Your task to perform on an android device: View the shopping cart on newegg. Add razer blade to the cart on newegg Image 0: 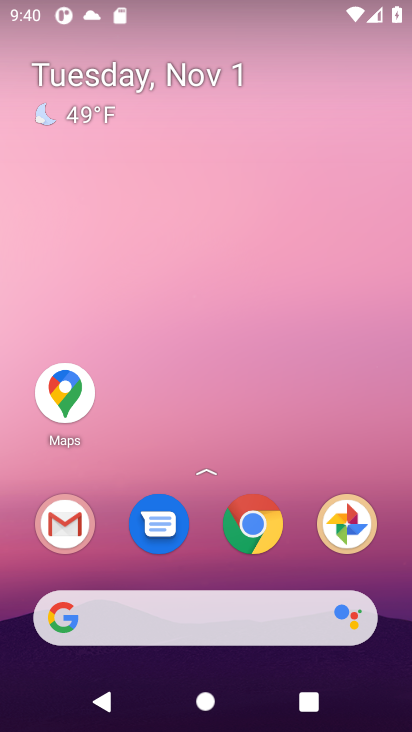
Step 0: press home button
Your task to perform on an android device: View the shopping cart on newegg. Add razer blade to the cart on newegg Image 1: 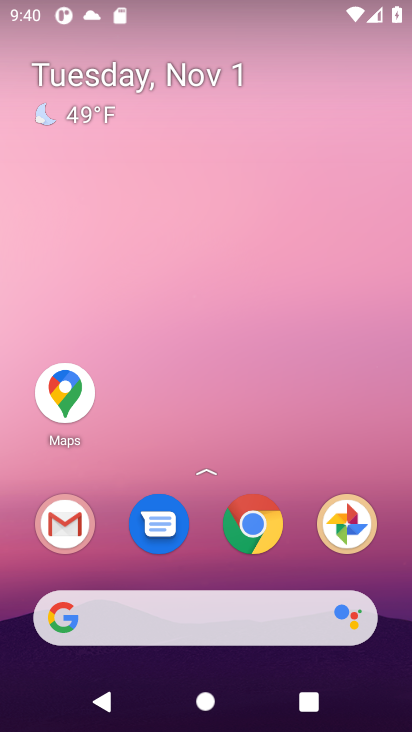
Step 1: click (95, 619)
Your task to perform on an android device: View the shopping cart on newegg. Add razer blade to the cart on newegg Image 2: 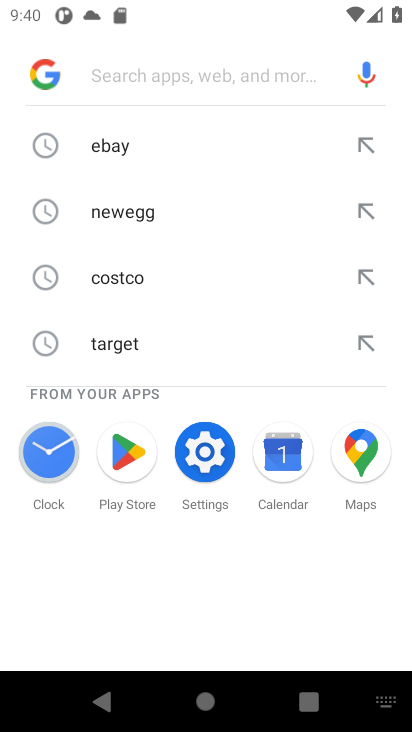
Step 2: type "newegg"
Your task to perform on an android device: View the shopping cart on newegg. Add razer blade to the cart on newegg Image 3: 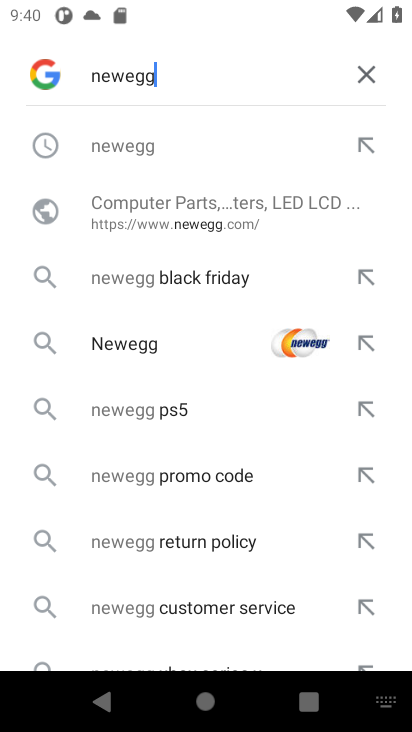
Step 3: press enter
Your task to perform on an android device: View the shopping cart on newegg. Add razer blade to the cart on newegg Image 4: 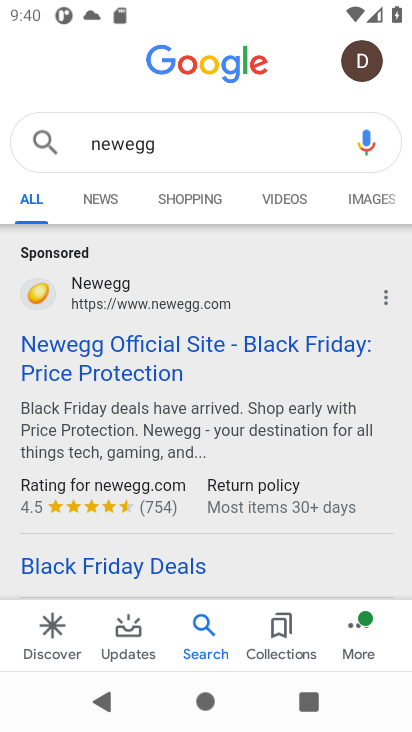
Step 4: click (108, 358)
Your task to perform on an android device: View the shopping cart on newegg. Add razer blade to the cart on newegg Image 5: 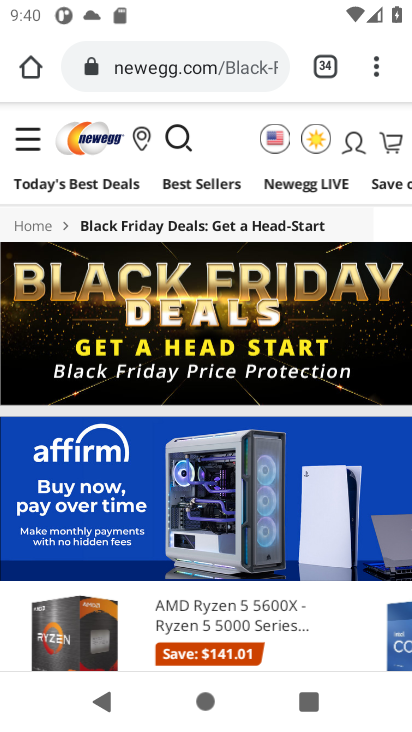
Step 5: click (397, 138)
Your task to perform on an android device: View the shopping cart on newegg. Add razer blade to the cart on newegg Image 6: 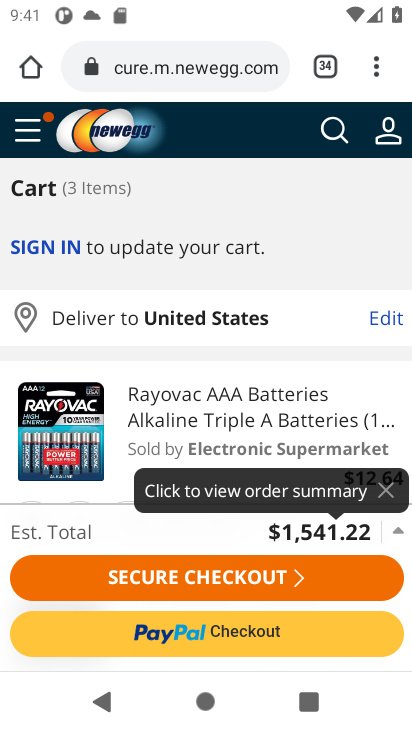
Step 6: click (324, 130)
Your task to perform on an android device: View the shopping cart on newegg. Add razer blade to the cart on newegg Image 7: 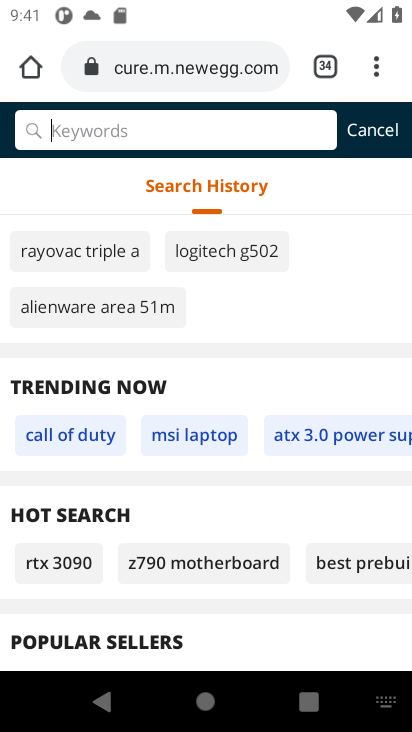
Step 7: press enter
Your task to perform on an android device: View the shopping cart on newegg. Add razer blade to the cart on newegg Image 8: 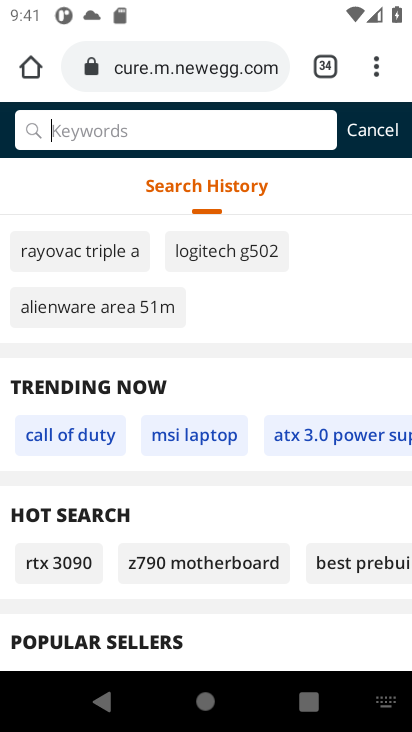
Step 8: type "razer blade"
Your task to perform on an android device: View the shopping cart on newegg. Add razer blade to the cart on newegg Image 9: 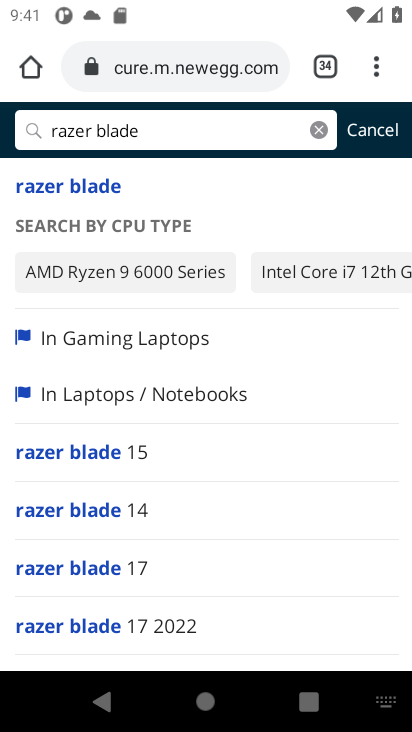
Step 9: click (92, 182)
Your task to perform on an android device: View the shopping cart on newegg. Add razer blade to the cart on newegg Image 10: 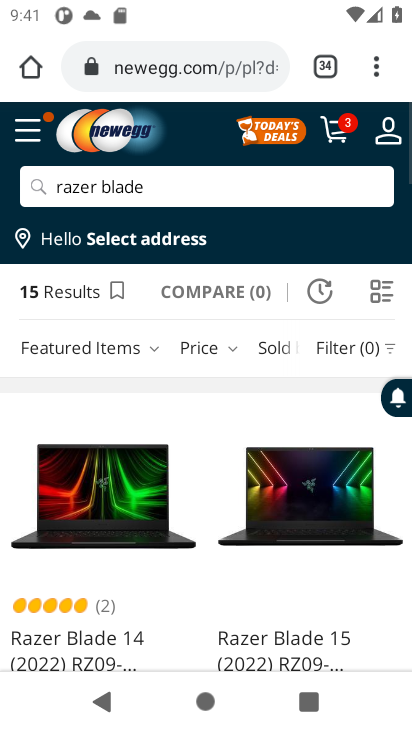
Step 10: drag from (279, 515) to (279, 222)
Your task to perform on an android device: View the shopping cart on newegg. Add razer blade to the cart on newegg Image 11: 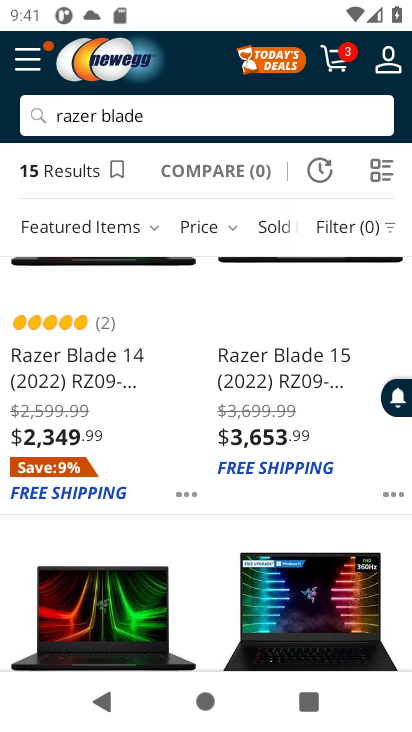
Step 11: drag from (181, 543) to (181, 377)
Your task to perform on an android device: View the shopping cart on newegg. Add razer blade to the cart on newegg Image 12: 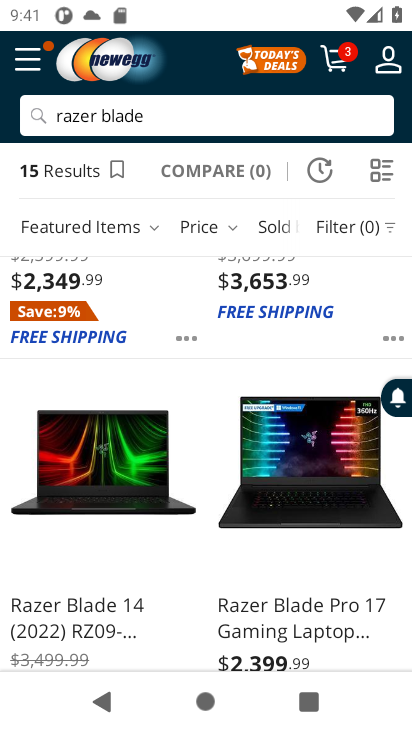
Step 12: drag from (172, 289) to (180, 530)
Your task to perform on an android device: View the shopping cart on newegg. Add razer blade to the cart on newegg Image 13: 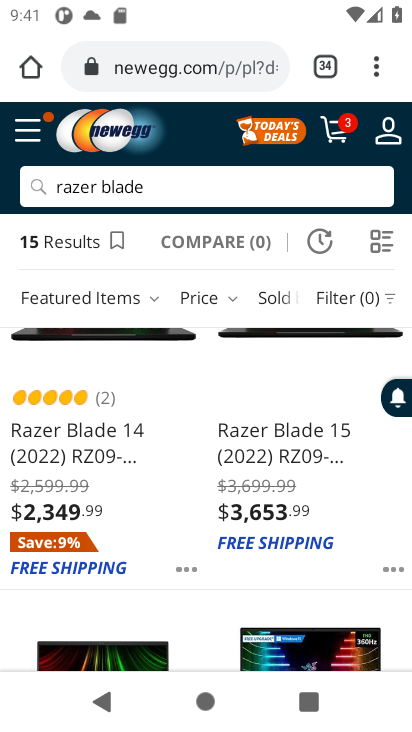
Step 13: drag from (166, 353) to (160, 526)
Your task to perform on an android device: View the shopping cart on newegg. Add razer blade to the cart on newegg Image 14: 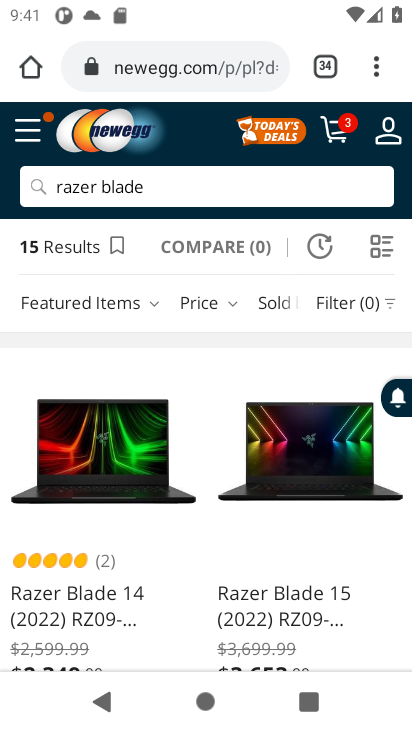
Step 14: click (59, 593)
Your task to perform on an android device: View the shopping cart on newegg. Add razer blade to the cart on newegg Image 15: 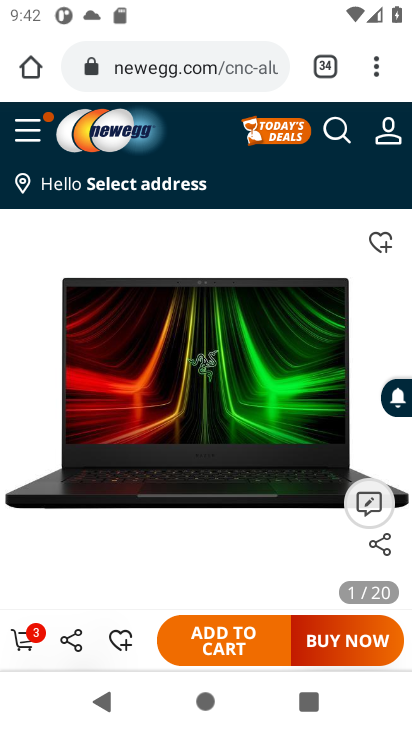
Step 15: click (221, 639)
Your task to perform on an android device: View the shopping cart on newegg. Add razer blade to the cart on newegg Image 16: 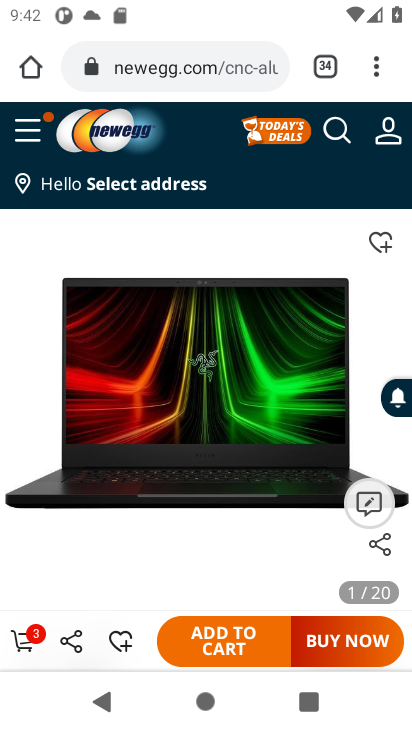
Step 16: click (221, 639)
Your task to perform on an android device: View the shopping cart on newegg. Add razer blade to the cart on newegg Image 17: 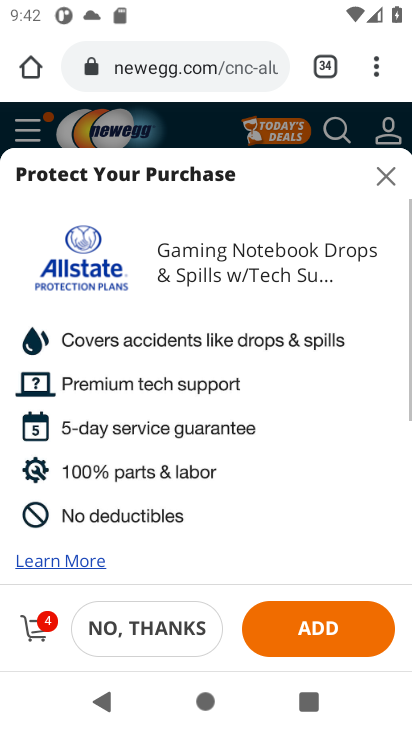
Step 17: click (149, 628)
Your task to perform on an android device: View the shopping cart on newegg. Add razer blade to the cart on newegg Image 18: 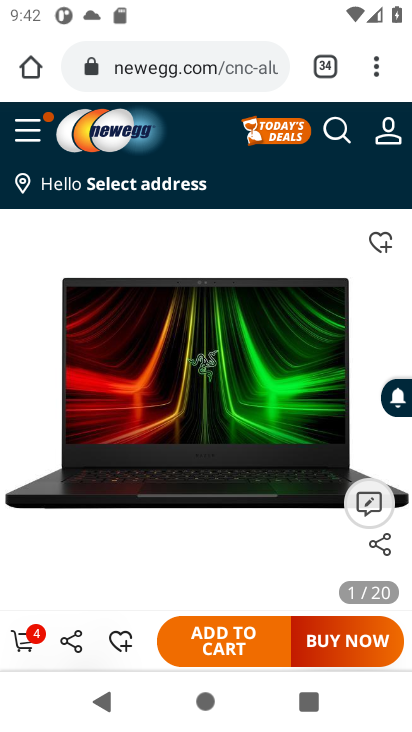
Step 18: task complete